Your task to perform on an android device: Go to Google Image 0: 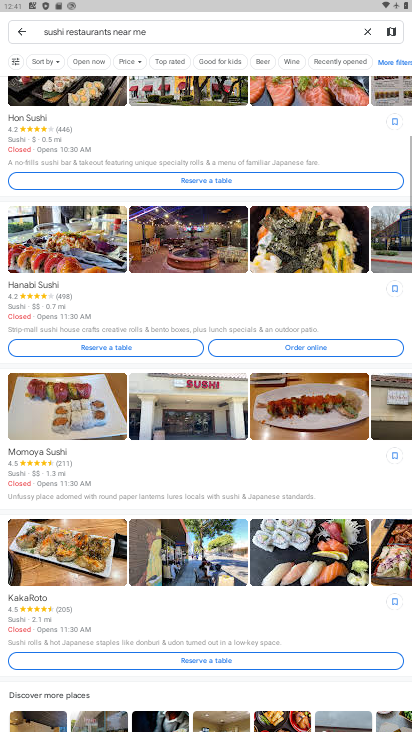
Step 0: press home button
Your task to perform on an android device: Go to Google Image 1: 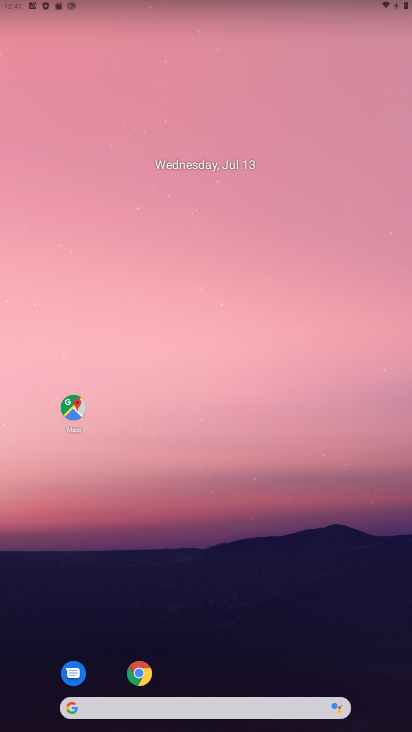
Step 1: click (202, 711)
Your task to perform on an android device: Go to Google Image 2: 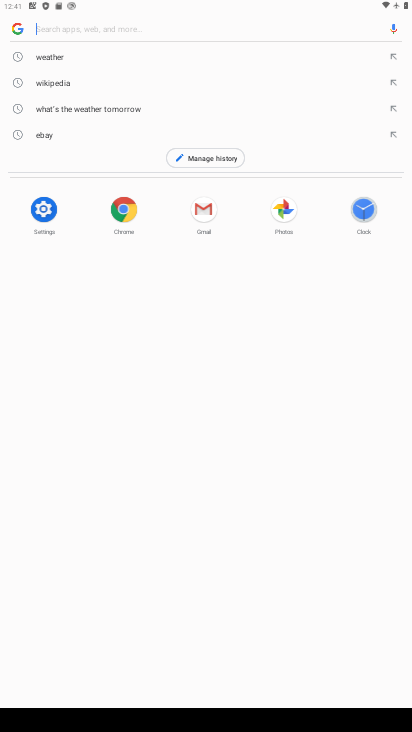
Step 2: type "google.com"
Your task to perform on an android device: Go to Google Image 3: 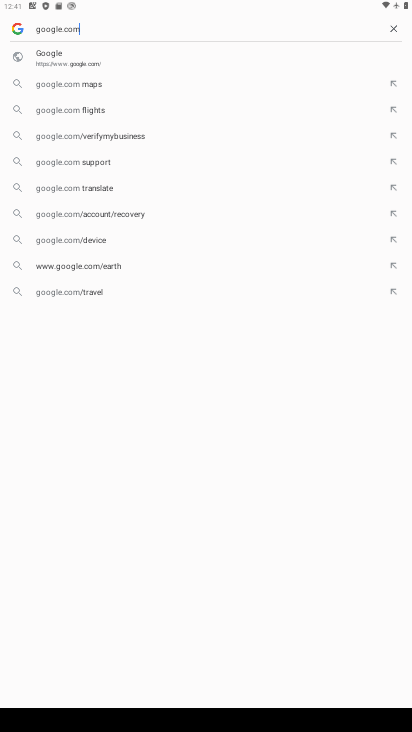
Step 3: click (121, 46)
Your task to perform on an android device: Go to Google Image 4: 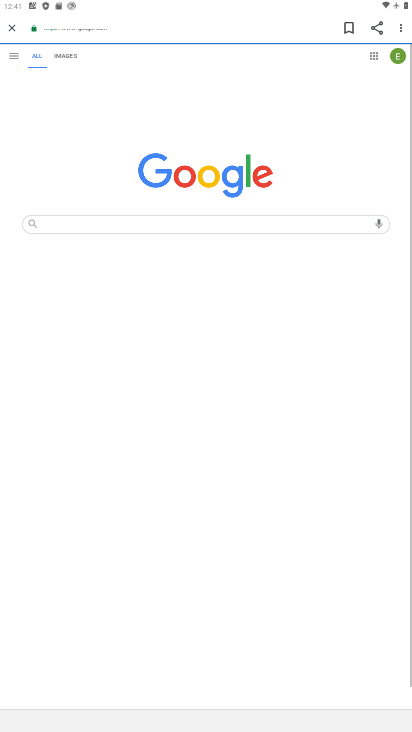
Step 4: task complete